Your task to perform on an android device: What is the recent news? Image 0: 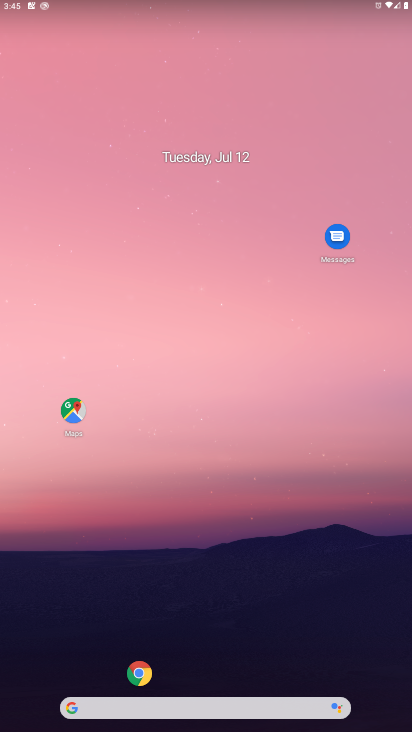
Step 0: click (198, 703)
Your task to perform on an android device: What is the recent news? Image 1: 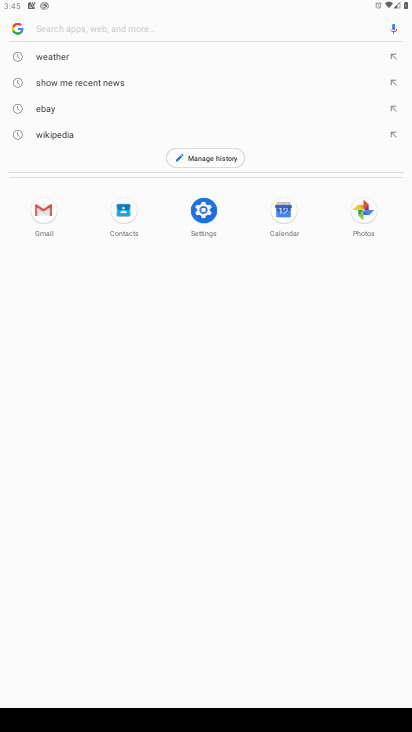
Step 1: type "What is the recent news?"
Your task to perform on an android device: What is the recent news? Image 2: 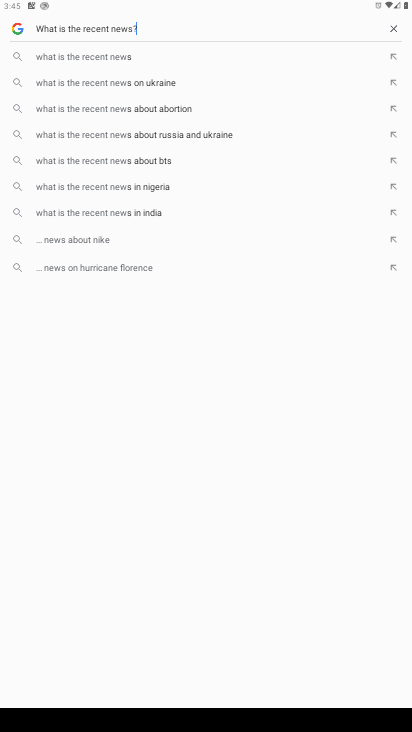
Step 2: type ""
Your task to perform on an android device: What is the recent news? Image 3: 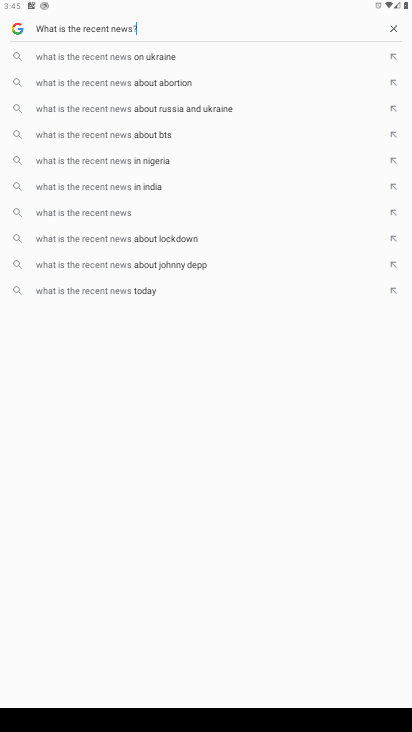
Step 3: type ""
Your task to perform on an android device: What is the recent news? Image 4: 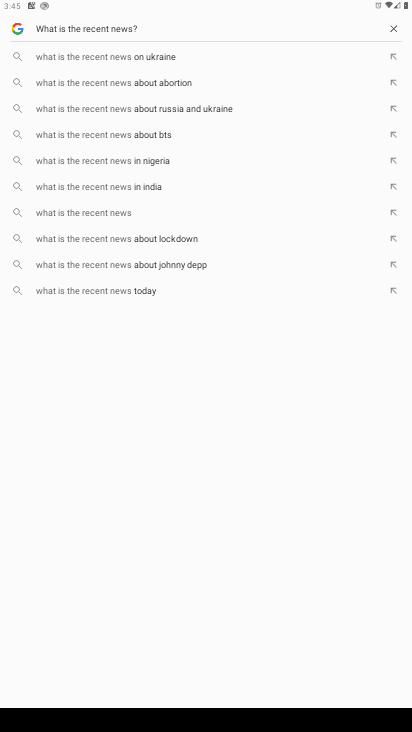
Step 4: type ""
Your task to perform on an android device: What is the recent news? Image 5: 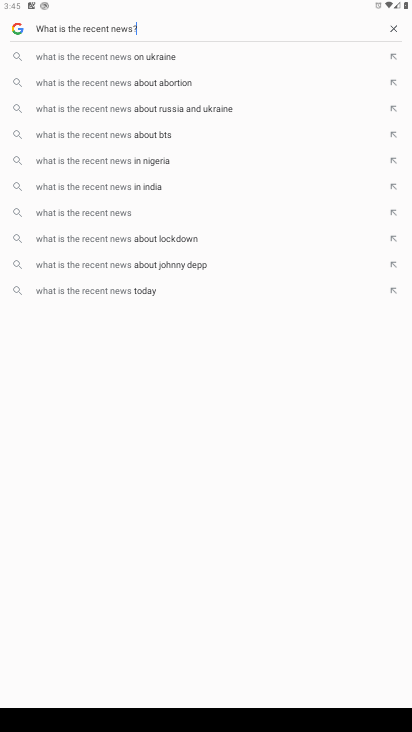
Step 5: type ""
Your task to perform on an android device: What is the recent news? Image 6: 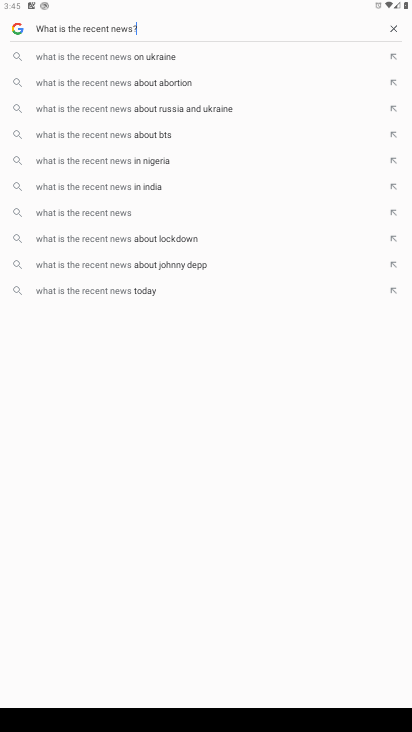
Step 6: task complete